Your task to perform on an android device: Search for vegetarian restaurants on Maps Image 0: 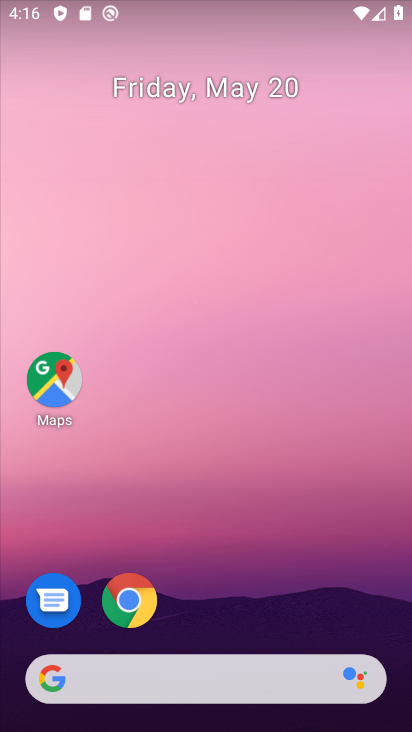
Step 0: click (53, 380)
Your task to perform on an android device: Search for vegetarian restaurants on Maps Image 1: 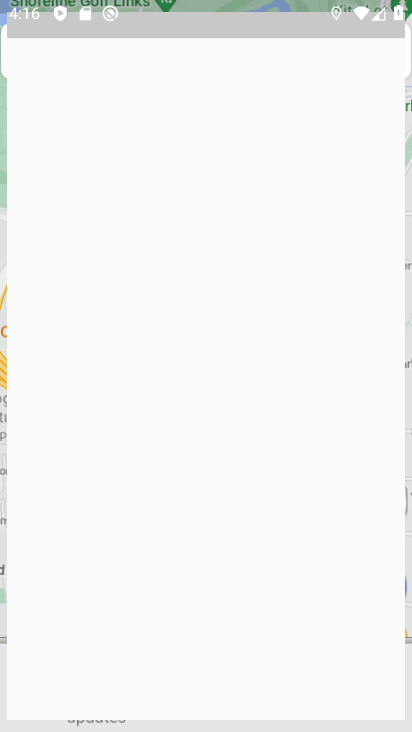
Step 1: click (157, 72)
Your task to perform on an android device: Search for vegetarian restaurants on Maps Image 2: 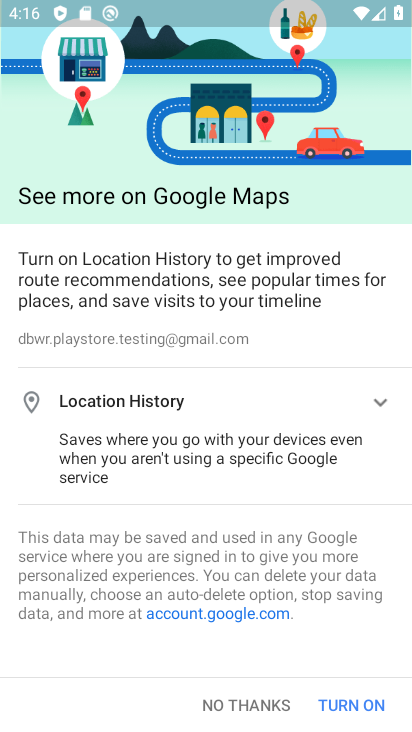
Step 2: click (256, 695)
Your task to perform on an android device: Search for vegetarian restaurants on Maps Image 3: 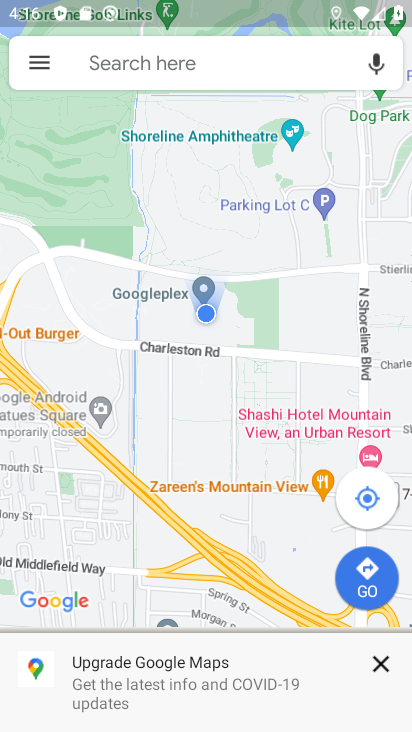
Step 3: click (205, 61)
Your task to perform on an android device: Search for vegetarian restaurants on Maps Image 4: 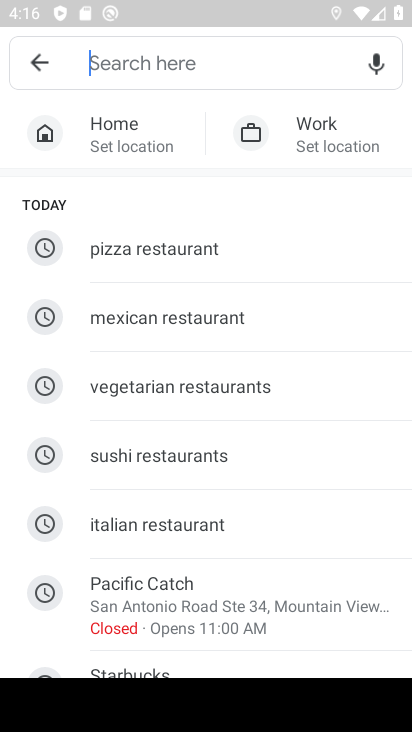
Step 4: click (192, 386)
Your task to perform on an android device: Search for vegetarian restaurants on Maps Image 5: 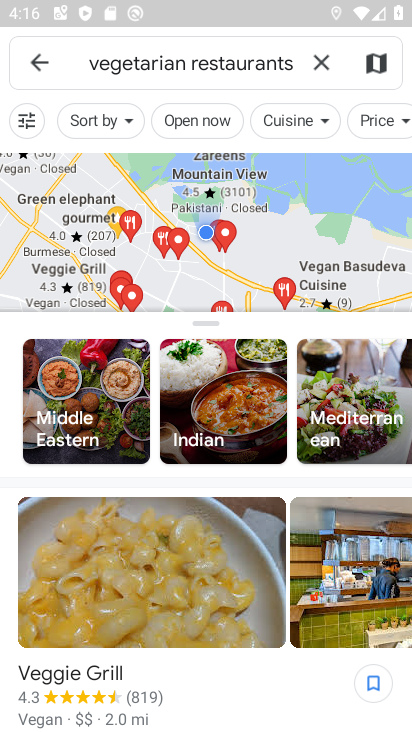
Step 5: task complete